Your task to perform on an android device: Show me productivity apps on the Play Store Image 0: 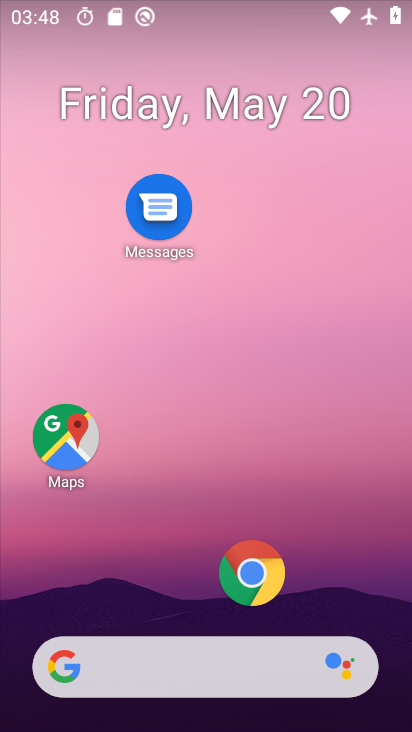
Step 0: drag from (199, 597) to (210, 170)
Your task to perform on an android device: Show me productivity apps on the Play Store Image 1: 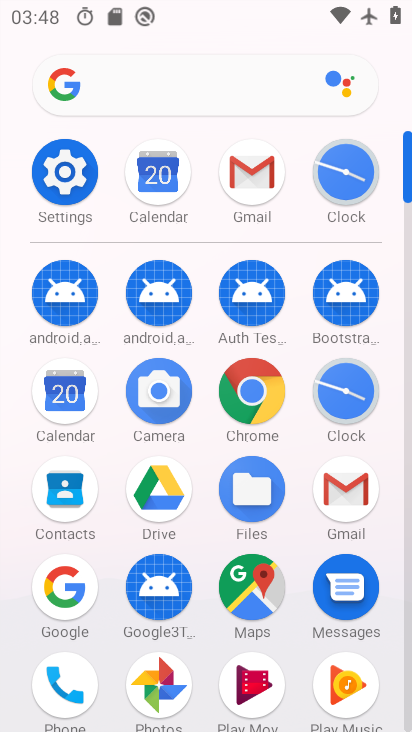
Step 1: drag from (200, 635) to (198, 259)
Your task to perform on an android device: Show me productivity apps on the Play Store Image 2: 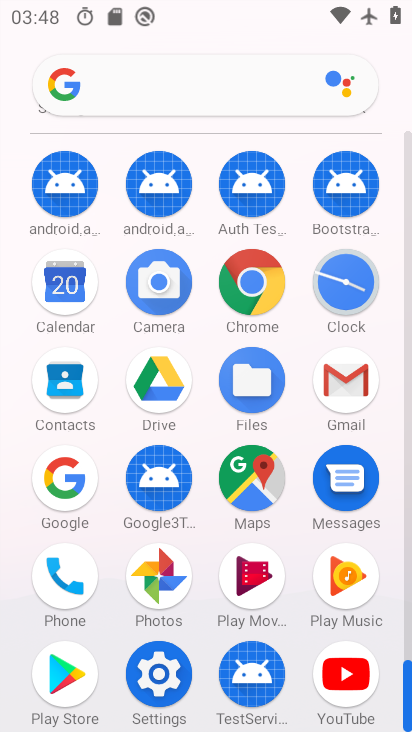
Step 2: click (73, 659)
Your task to perform on an android device: Show me productivity apps on the Play Store Image 3: 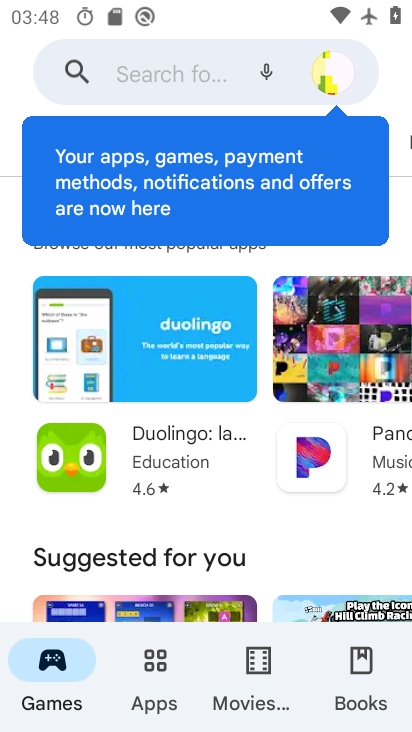
Step 3: click (156, 651)
Your task to perform on an android device: Show me productivity apps on the Play Store Image 4: 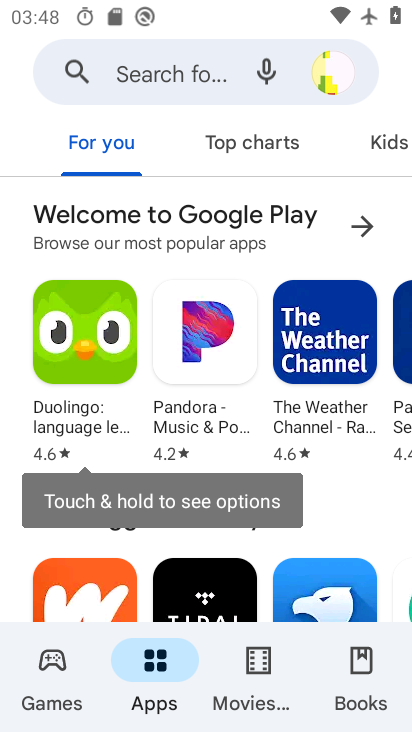
Step 4: drag from (395, 151) to (27, 149)
Your task to perform on an android device: Show me productivity apps on the Play Store Image 5: 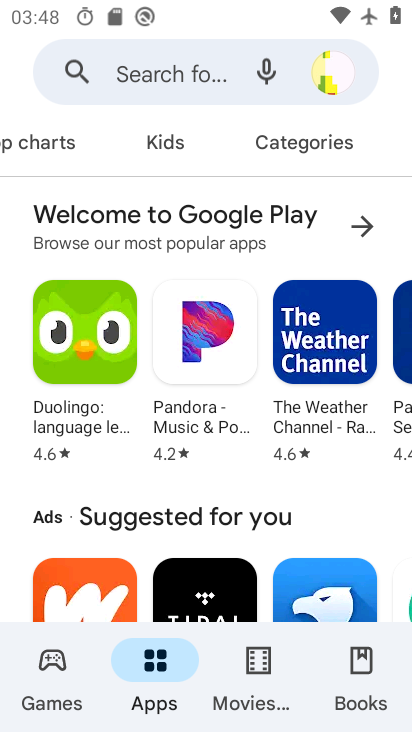
Step 5: click (331, 145)
Your task to perform on an android device: Show me productivity apps on the Play Store Image 6: 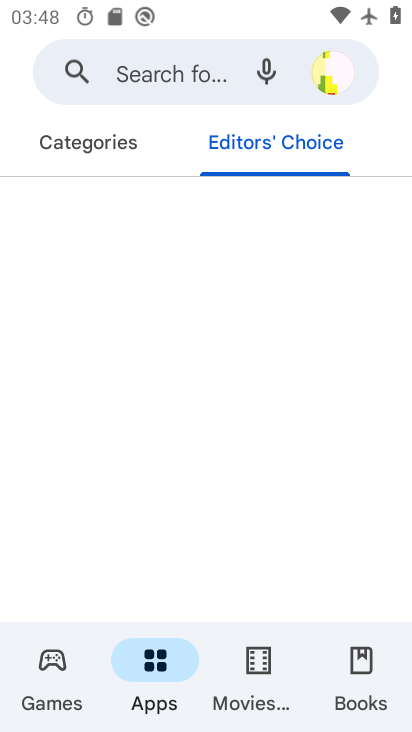
Step 6: click (62, 144)
Your task to perform on an android device: Show me productivity apps on the Play Store Image 7: 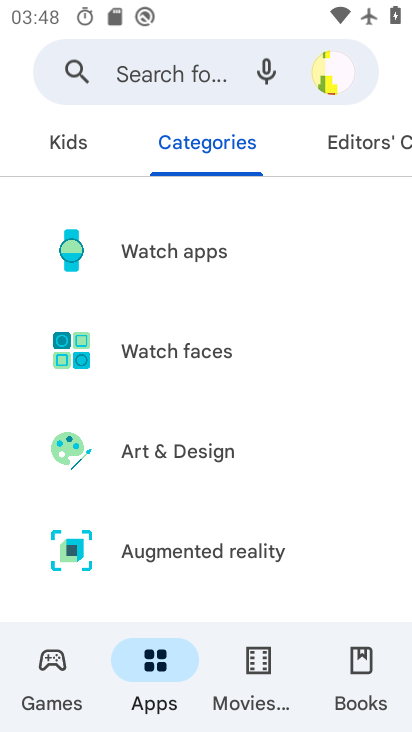
Step 7: drag from (165, 549) to (181, 151)
Your task to perform on an android device: Show me productivity apps on the Play Store Image 8: 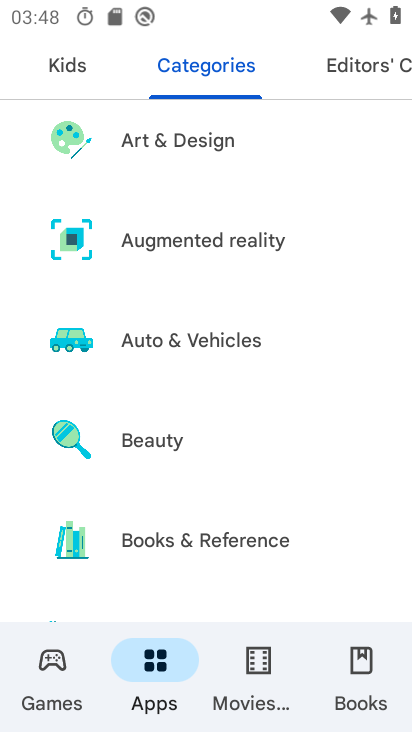
Step 8: drag from (199, 562) to (213, 161)
Your task to perform on an android device: Show me productivity apps on the Play Store Image 9: 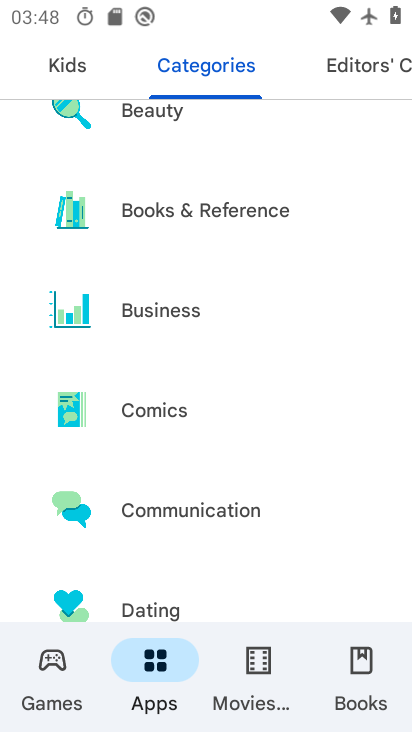
Step 9: drag from (213, 554) to (220, 158)
Your task to perform on an android device: Show me productivity apps on the Play Store Image 10: 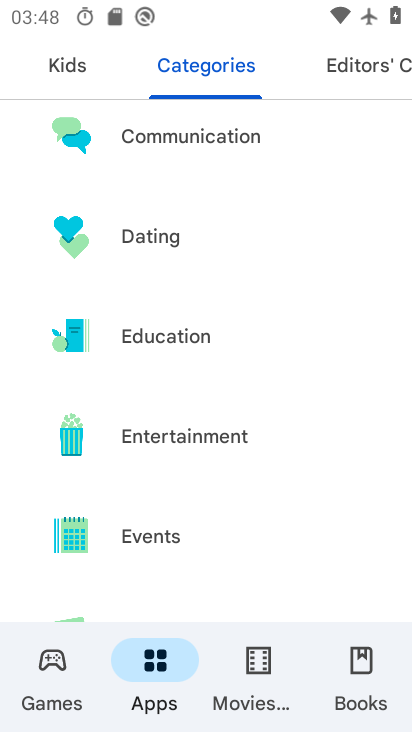
Step 10: drag from (220, 535) to (232, 171)
Your task to perform on an android device: Show me productivity apps on the Play Store Image 11: 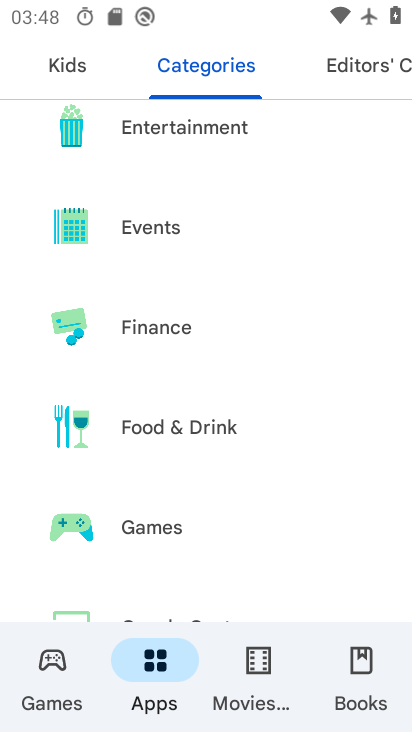
Step 11: drag from (232, 551) to (243, 227)
Your task to perform on an android device: Show me productivity apps on the Play Store Image 12: 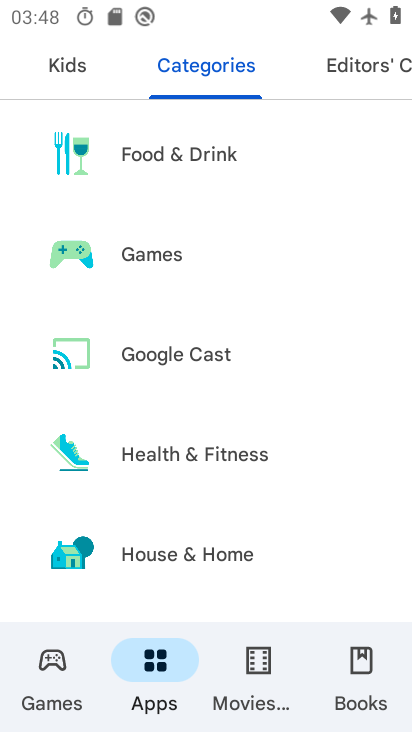
Step 12: drag from (245, 544) to (255, 191)
Your task to perform on an android device: Show me productivity apps on the Play Store Image 13: 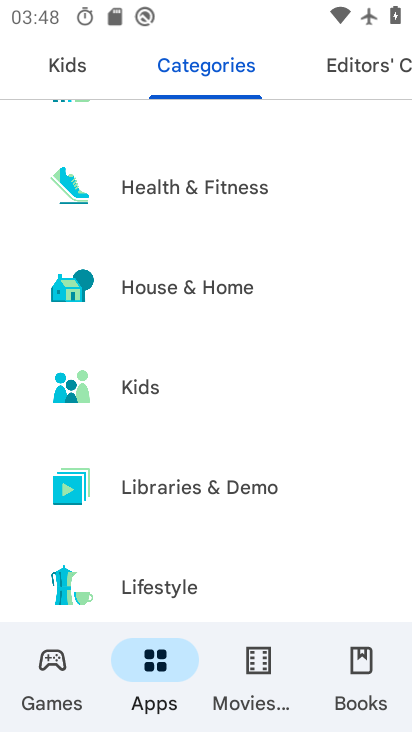
Step 13: drag from (256, 592) to (258, 157)
Your task to perform on an android device: Show me productivity apps on the Play Store Image 14: 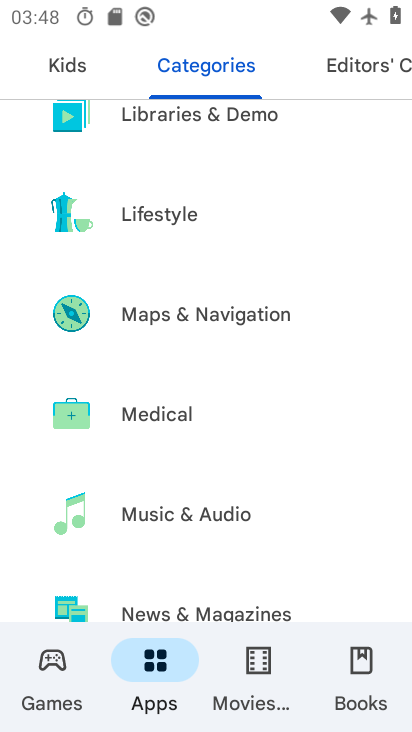
Step 14: drag from (258, 593) to (244, 128)
Your task to perform on an android device: Show me productivity apps on the Play Store Image 15: 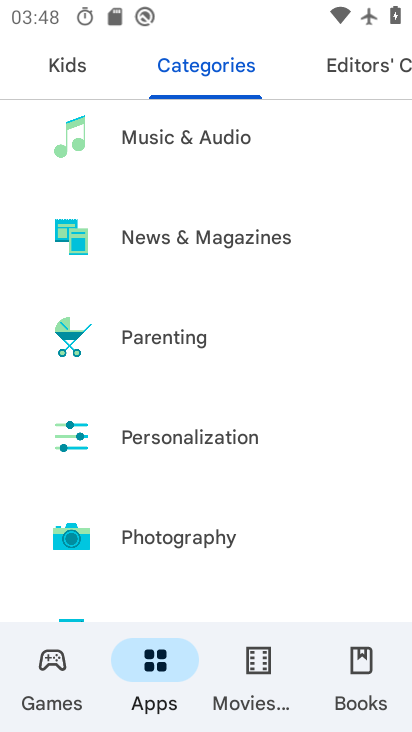
Step 15: drag from (251, 551) to (252, 239)
Your task to perform on an android device: Show me productivity apps on the Play Store Image 16: 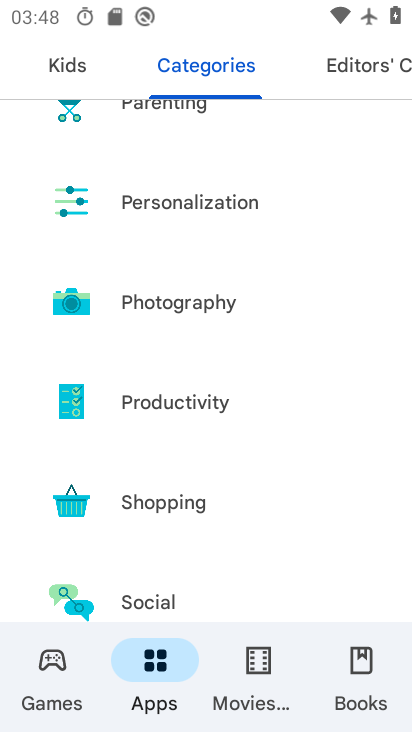
Step 16: click (252, 397)
Your task to perform on an android device: Show me productivity apps on the Play Store Image 17: 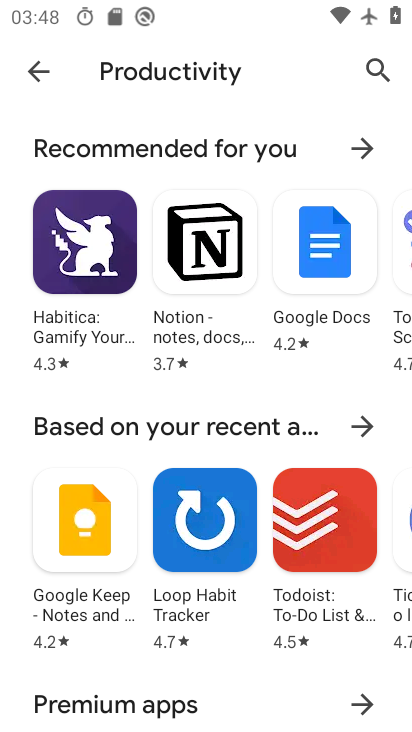
Step 17: task complete